Your task to perform on an android device: Open sound settings Image 0: 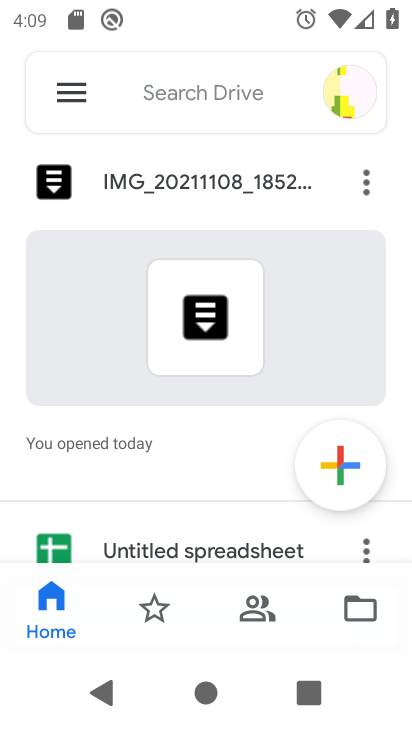
Step 0: press home button
Your task to perform on an android device: Open sound settings Image 1: 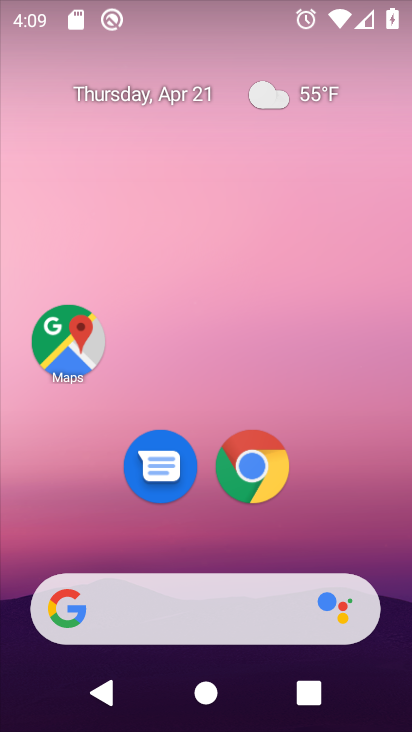
Step 1: drag from (219, 548) to (268, 87)
Your task to perform on an android device: Open sound settings Image 2: 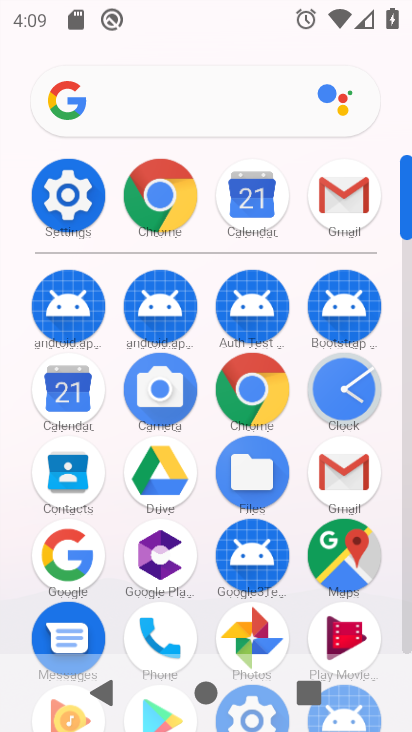
Step 2: click (67, 196)
Your task to perform on an android device: Open sound settings Image 3: 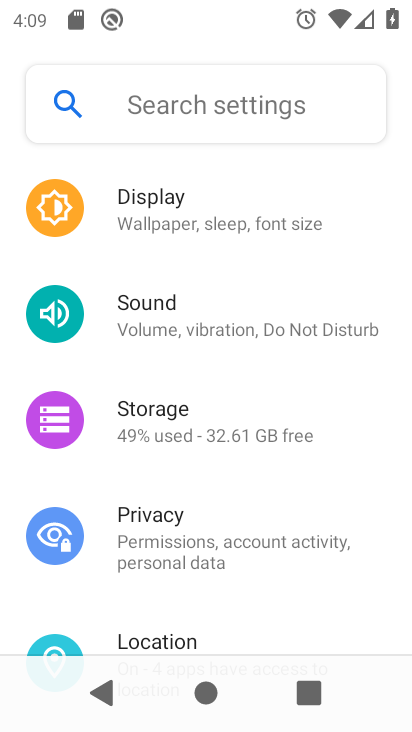
Step 3: click (217, 328)
Your task to perform on an android device: Open sound settings Image 4: 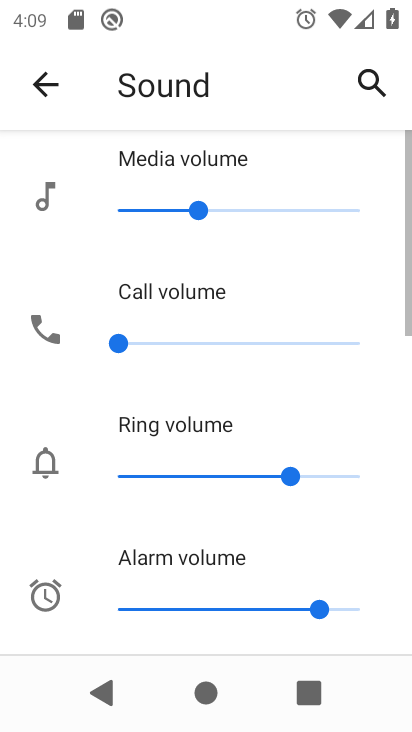
Step 4: task complete